Your task to perform on an android device: Open Chrome and go to settings Image 0: 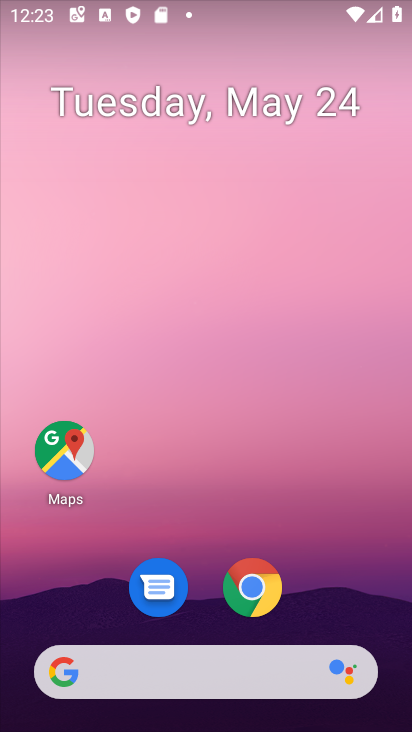
Step 0: click (251, 581)
Your task to perform on an android device: Open Chrome and go to settings Image 1: 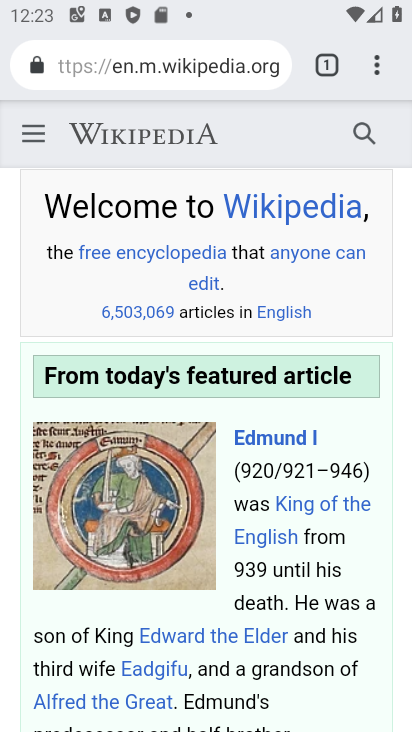
Step 1: click (379, 64)
Your task to perform on an android device: Open Chrome and go to settings Image 2: 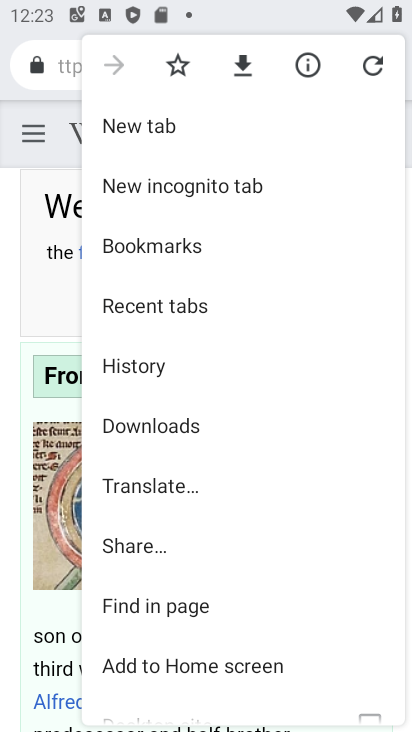
Step 2: drag from (192, 697) to (214, 178)
Your task to perform on an android device: Open Chrome and go to settings Image 3: 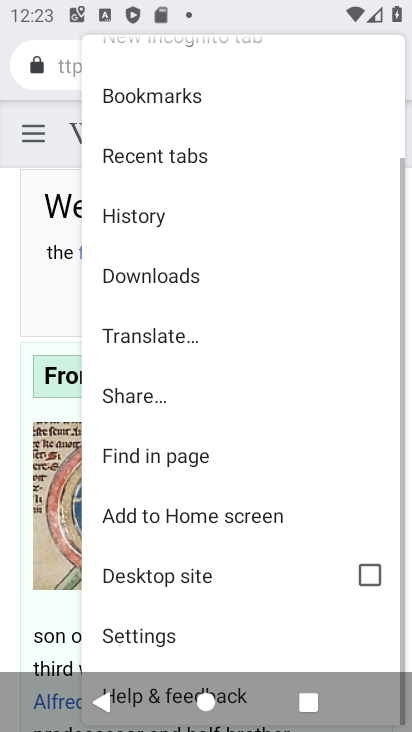
Step 3: click (176, 635)
Your task to perform on an android device: Open Chrome and go to settings Image 4: 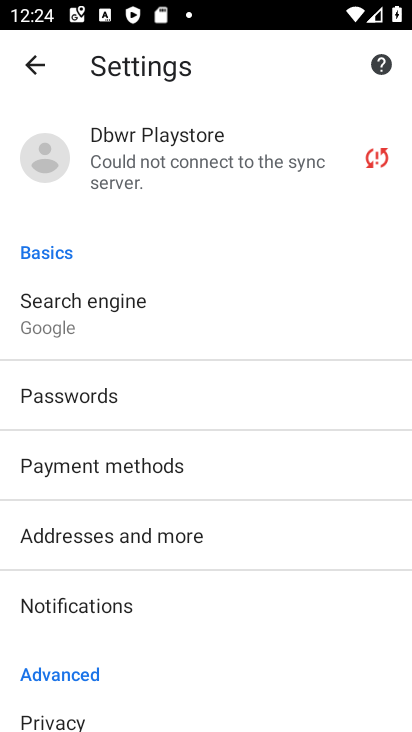
Step 4: task complete